Your task to perform on an android device: change your default location settings in chrome Image 0: 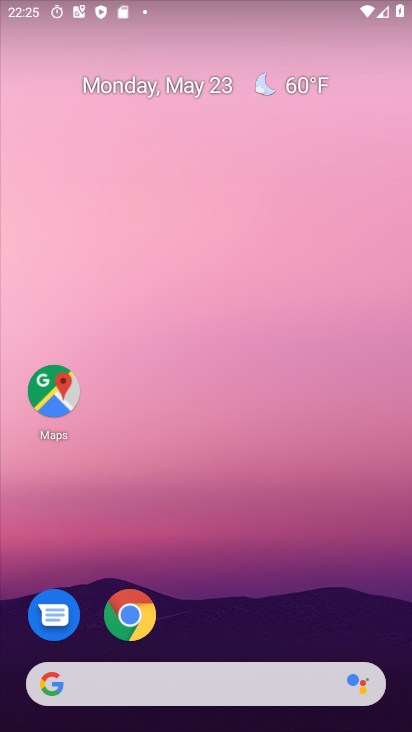
Step 0: click (142, 613)
Your task to perform on an android device: change your default location settings in chrome Image 1: 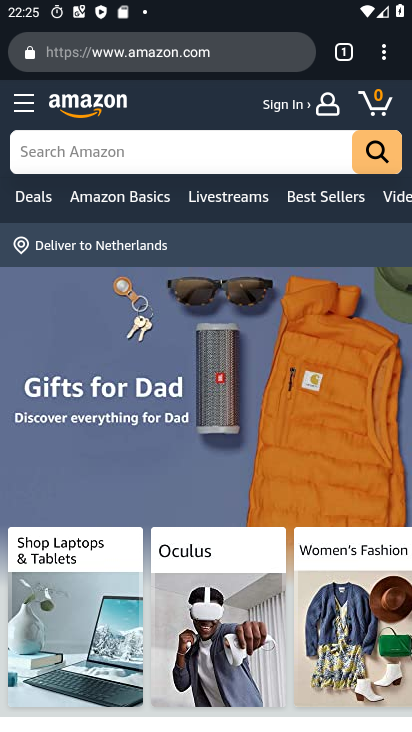
Step 1: click (375, 46)
Your task to perform on an android device: change your default location settings in chrome Image 2: 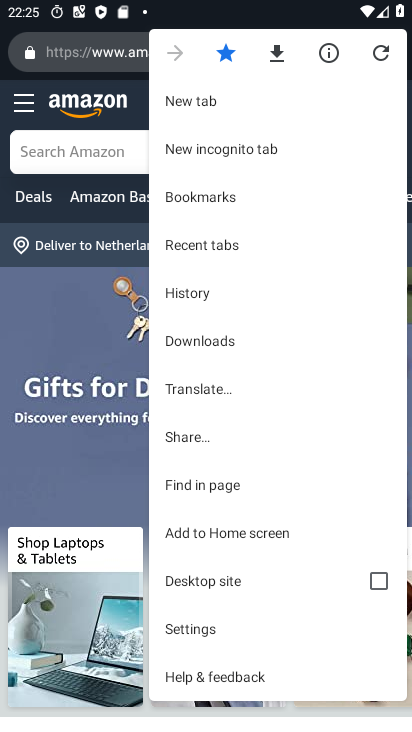
Step 2: click (218, 632)
Your task to perform on an android device: change your default location settings in chrome Image 3: 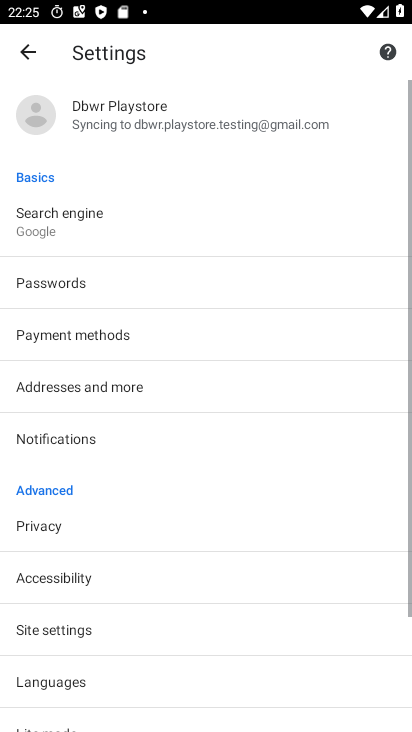
Step 3: drag from (175, 619) to (166, 233)
Your task to perform on an android device: change your default location settings in chrome Image 4: 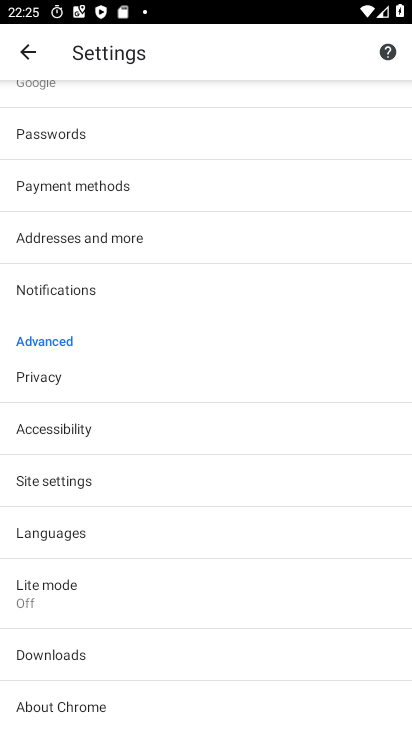
Step 4: click (74, 483)
Your task to perform on an android device: change your default location settings in chrome Image 5: 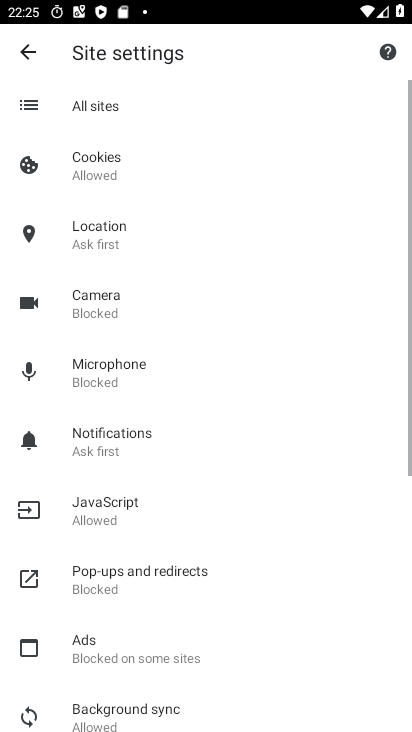
Step 5: click (189, 257)
Your task to perform on an android device: change your default location settings in chrome Image 6: 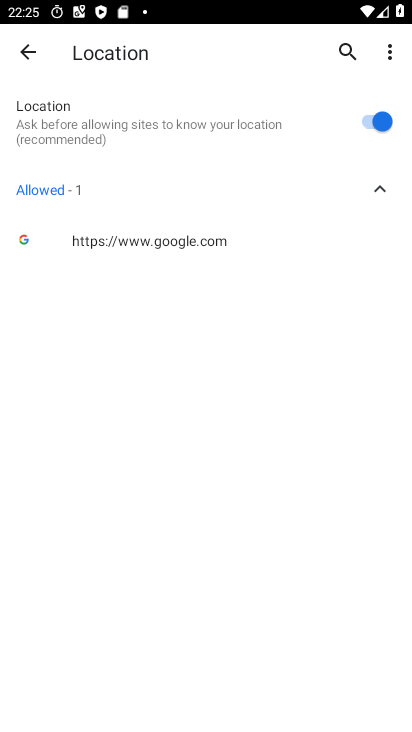
Step 6: click (377, 132)
Your task to perform on an android device: change your default location settings in chrome Image 7: 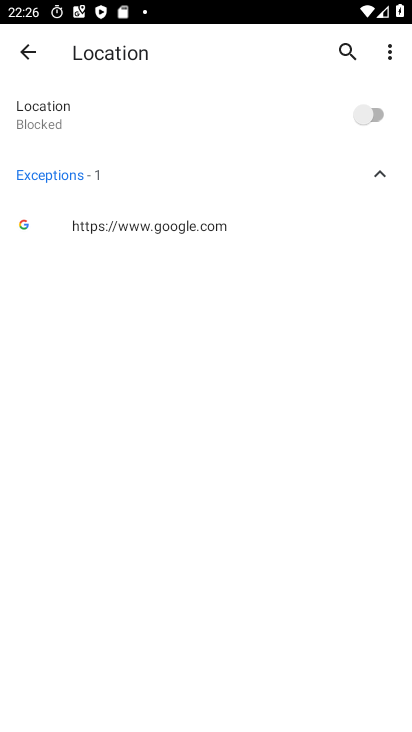
Step 7: task complete